Your task to perform on an android device: Empty the shopping cart on costco.com. Add sony triple a to the cart on costco.com Image 0: 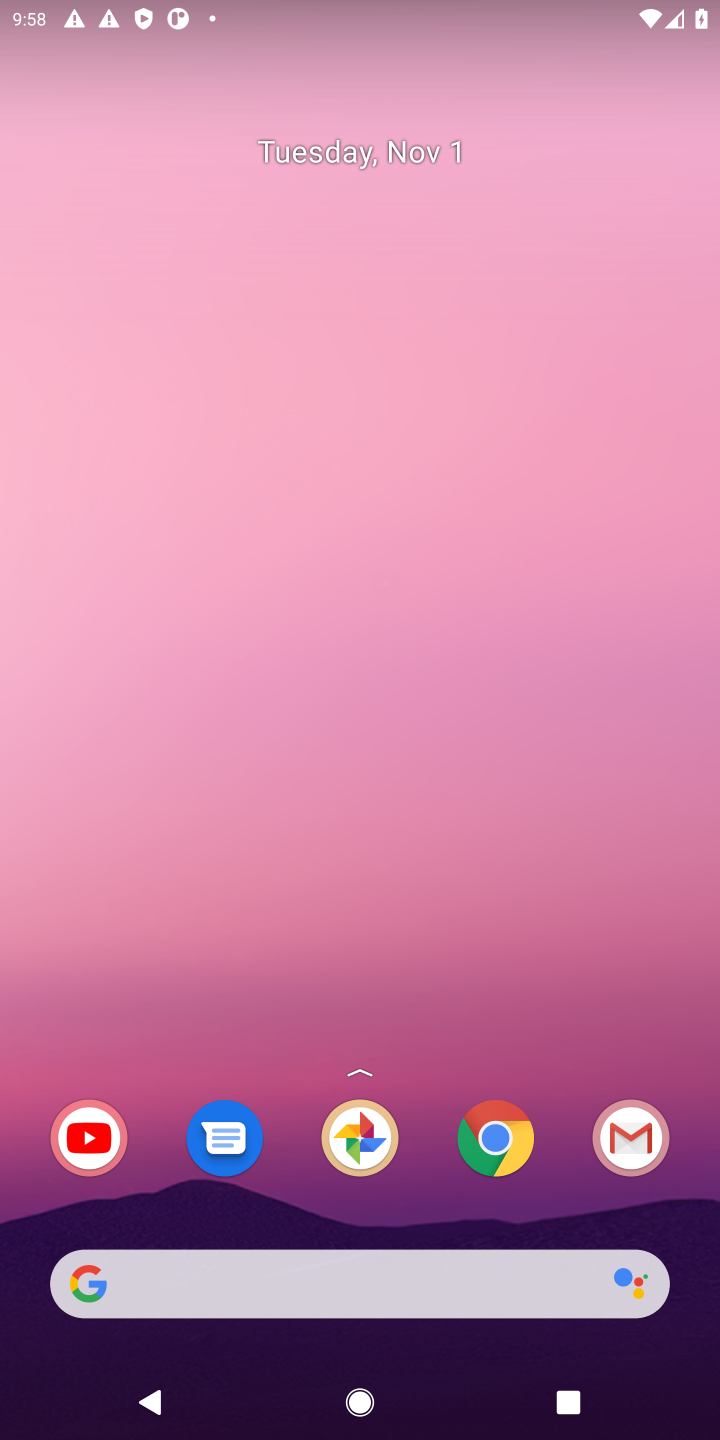
Step 0: click (501, 1137)
Your task to perform on an android device: Empty the shopping cart on costco.com. Add sony triple a to the cart on costco.com Image 1: 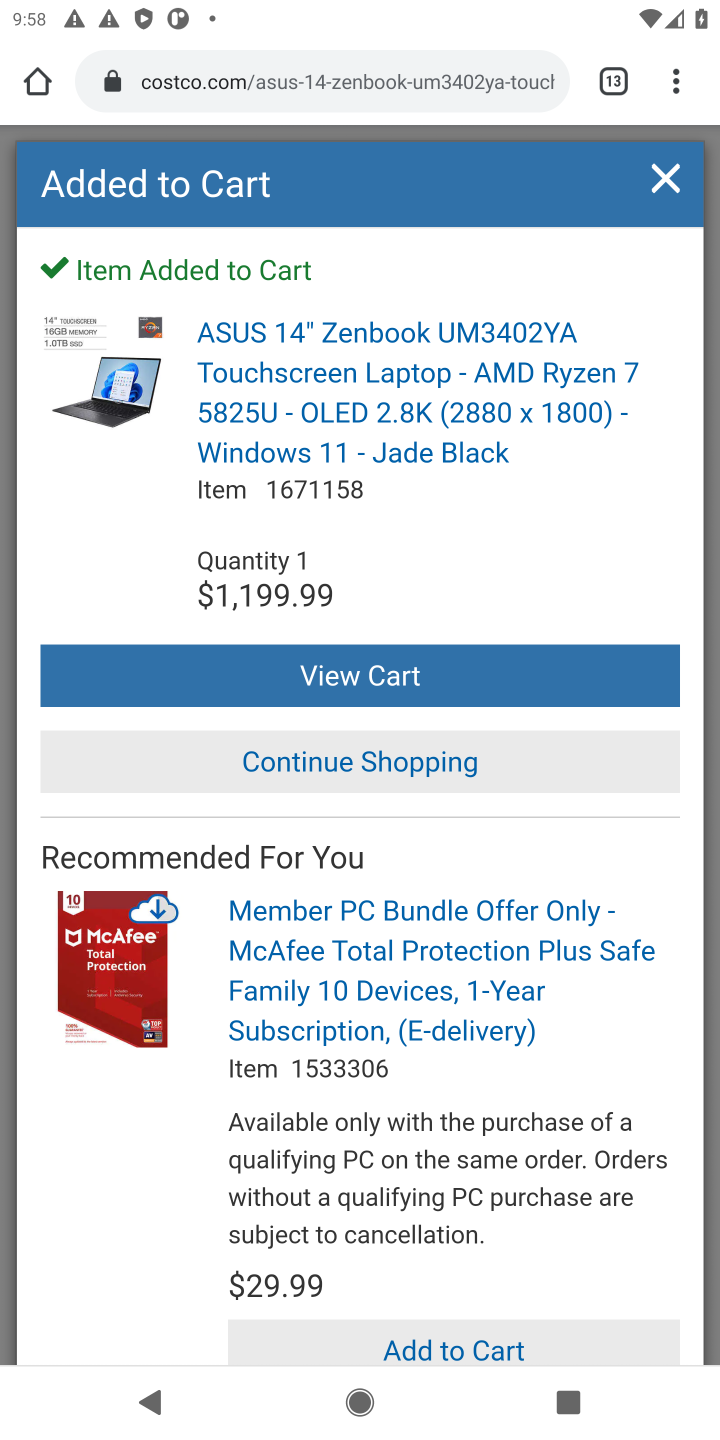
Step 1: drag from (677, 98) to (375, 181)
Your task to perform on an android device: Empty the shopping cart on costco.com. Add sony triple a to the cart on costco.com Image 2: 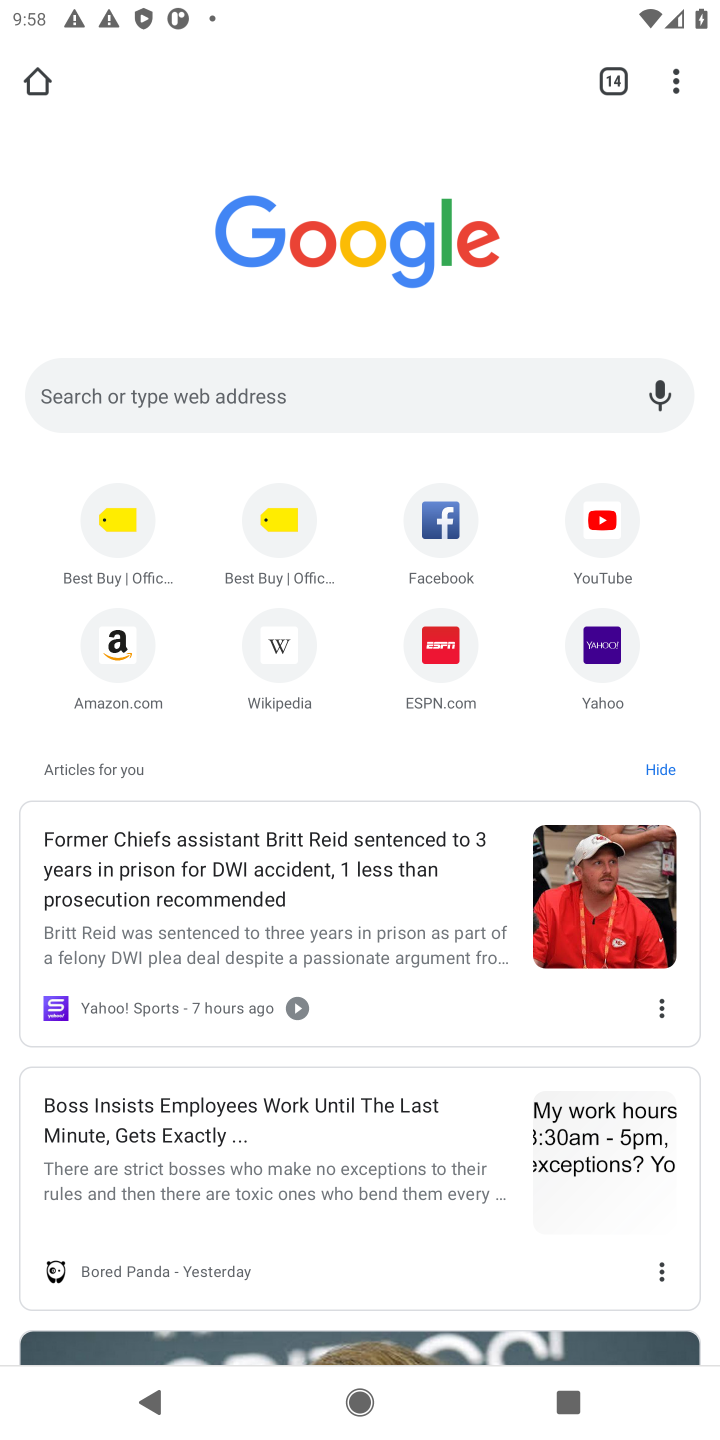
Step 2: click (271, 393)
Your task to perform on an android device: Empty the shopping cart on costco.com. Add sony triple a to the cart on costco.com Image 3: 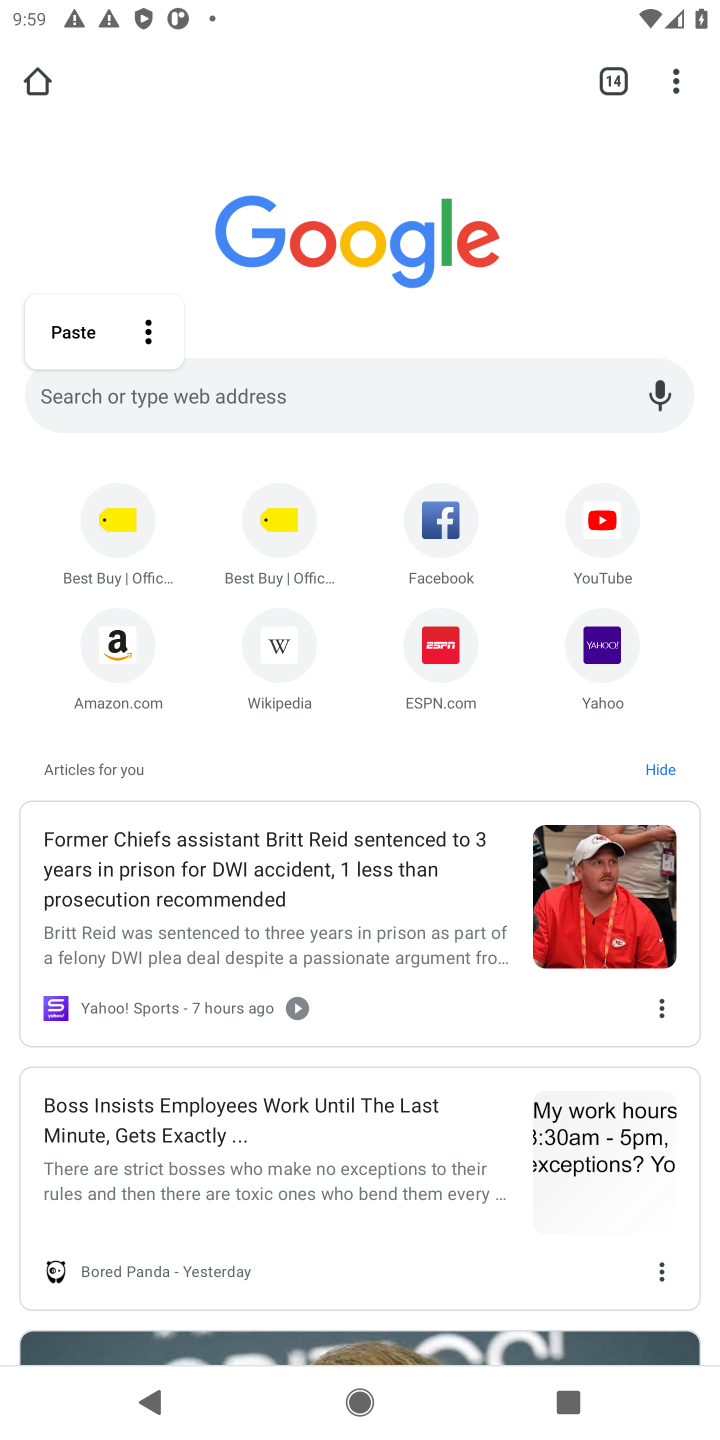
Step 3: click (348, 418)
Your task to perform on an android device: Empty the shopping cart on costco.com. Add sony triple a to the cart on costco.com Image 4: 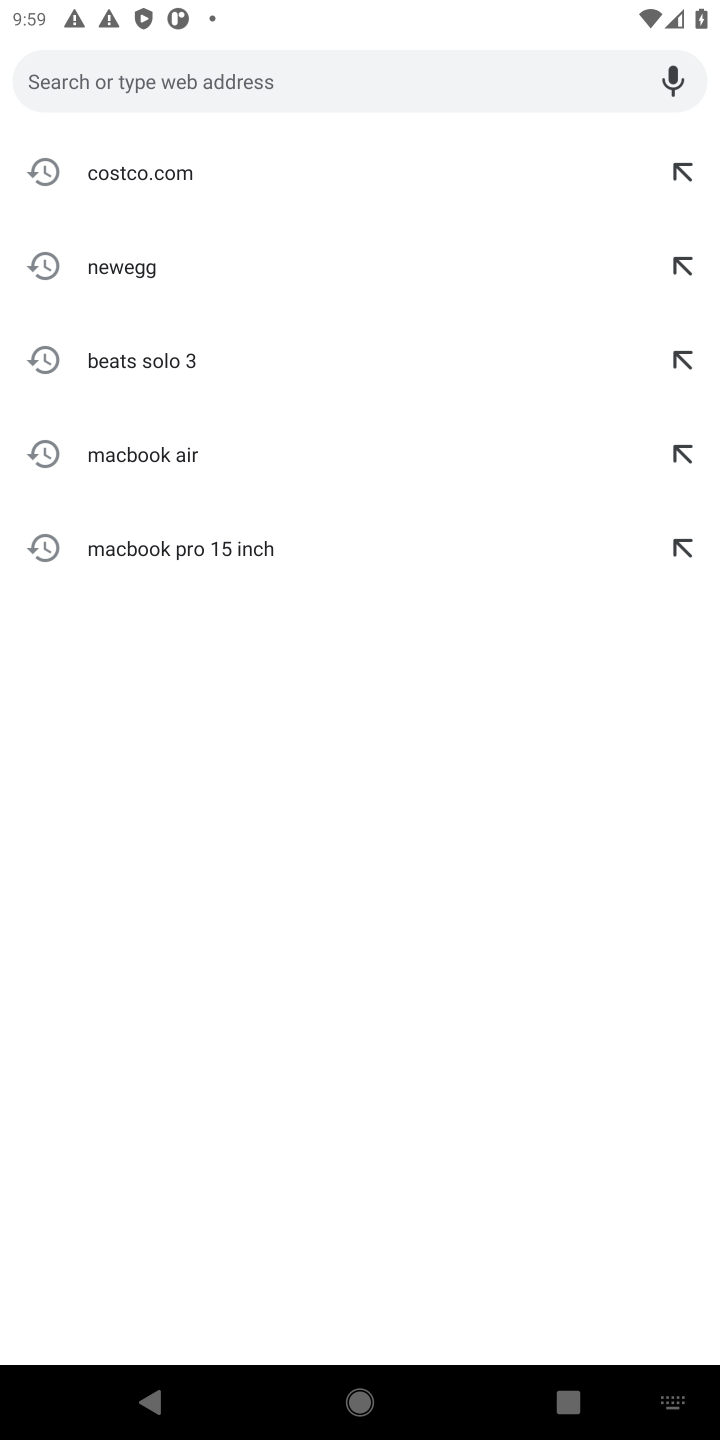
Step 4: type "costco.com"
Your task to perform on an android device: Empty the shopping cart on costco.com. Add sony triple a to the cart on costco.com Image 5: 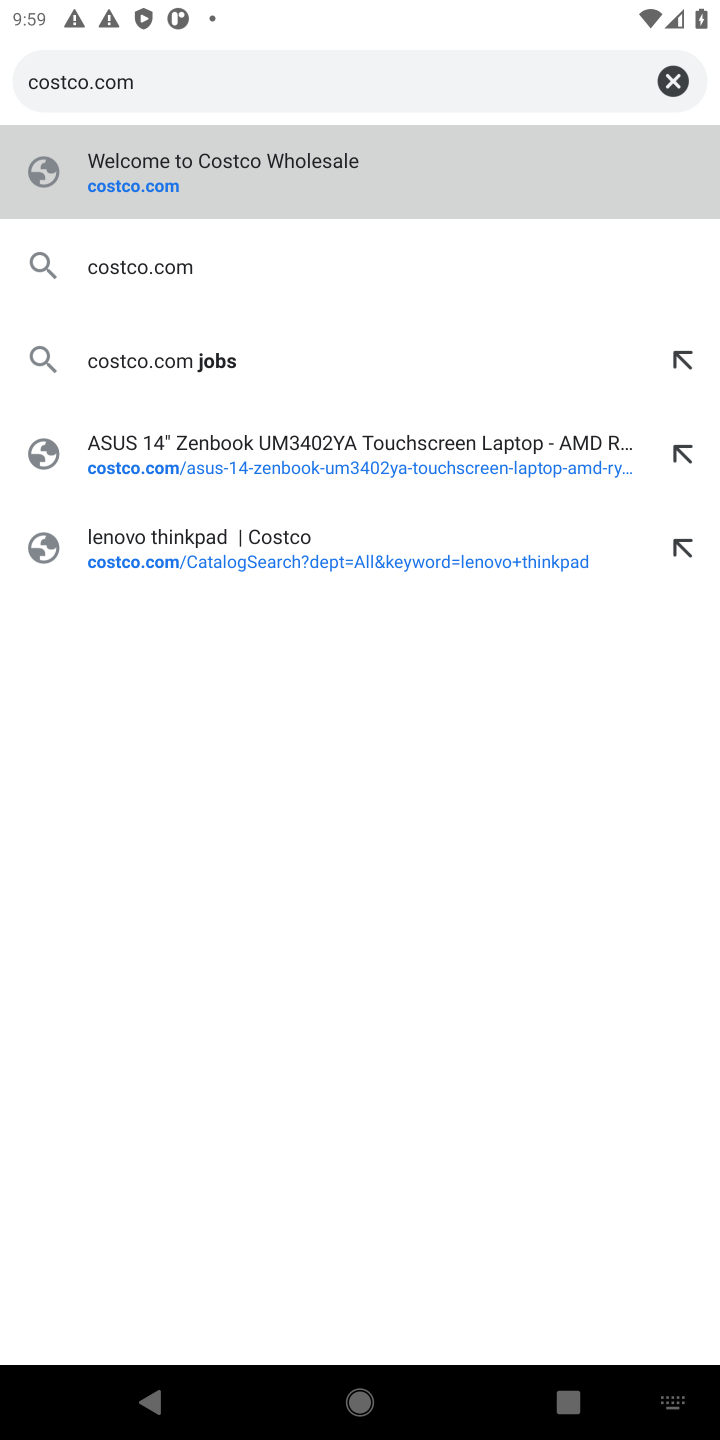
Step 5: type ""
Your task to perform on an android device: Empty the shopping cart on costco.com. Add sony triple a to the cart on costco.com Image 6: 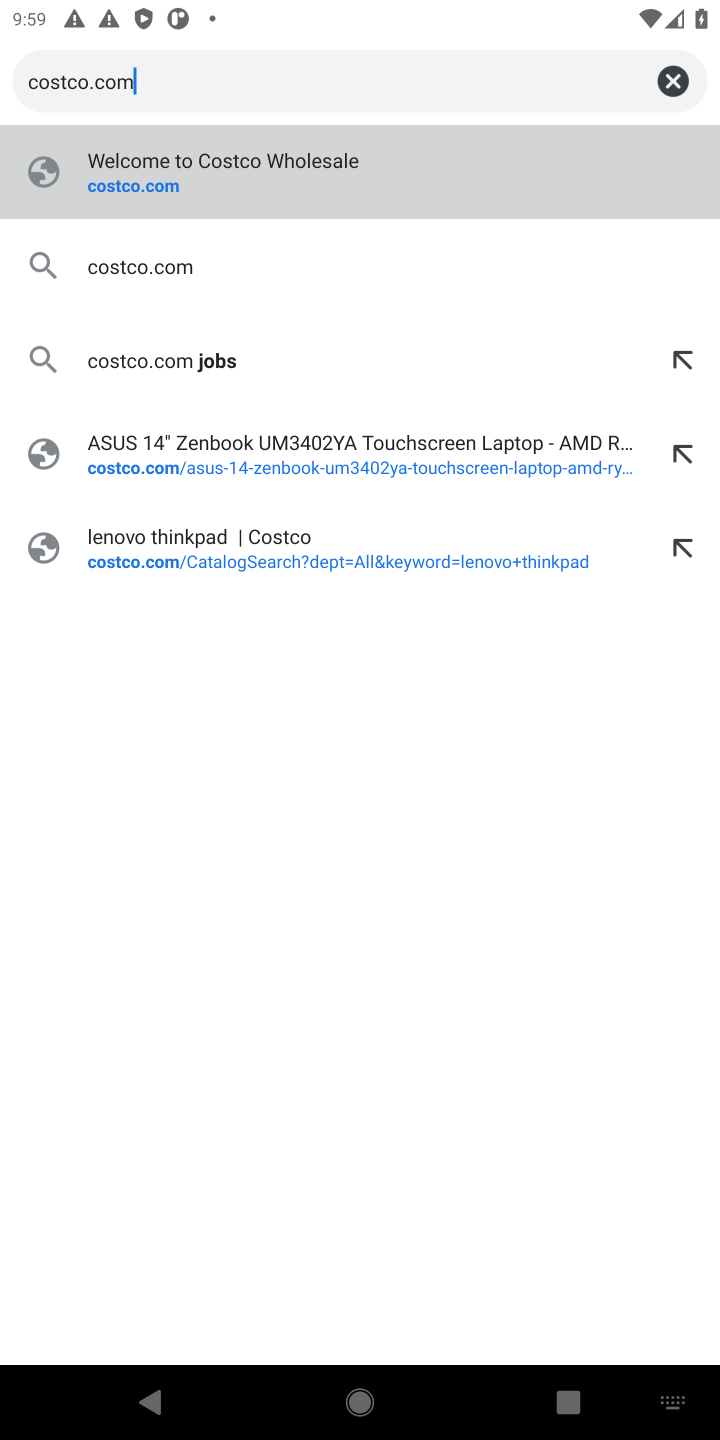
Step 6: click (179, 269)
Your task to perform on an android device: Empty the shopping cart on costco.com. Add sony triple a to the cart on costco.com Image 7: 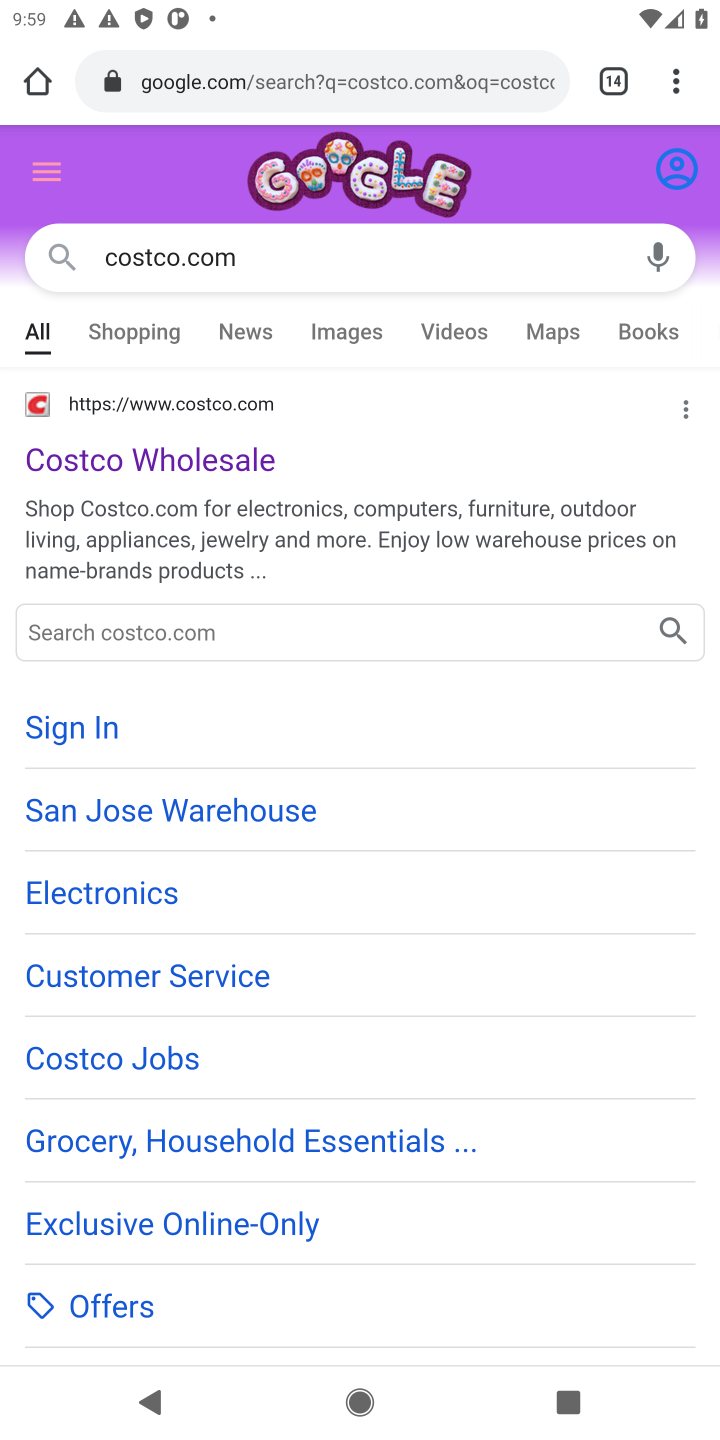
Step 7: click (216, 464)
Your task to perform on an android device: Empty the shopping cart on costco.com. Add sony triple a to the cart on costco.com Image 8: 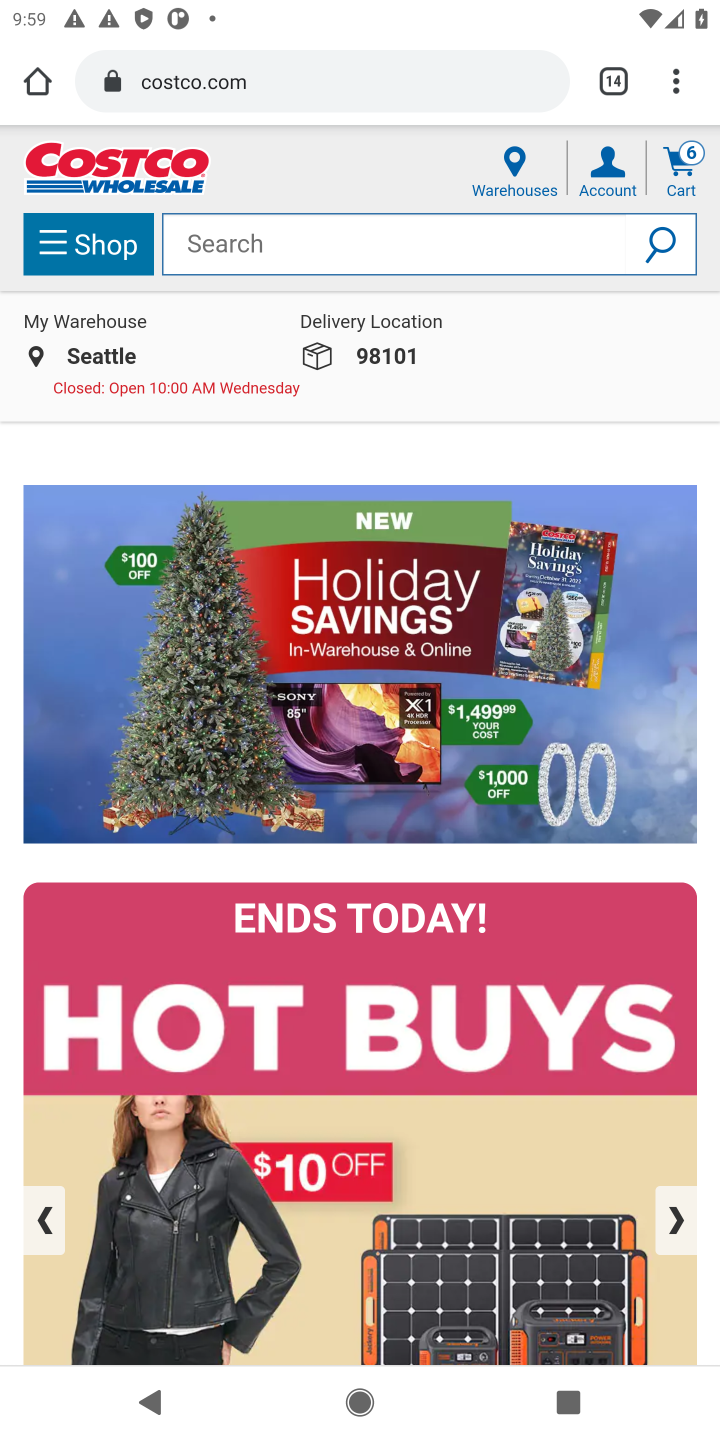
Step 8: click (297, 240)
Your task to perform on an android device: Empty the shopping cart on costco.com. Add sony triple a to the cart on costco.com Image 9: 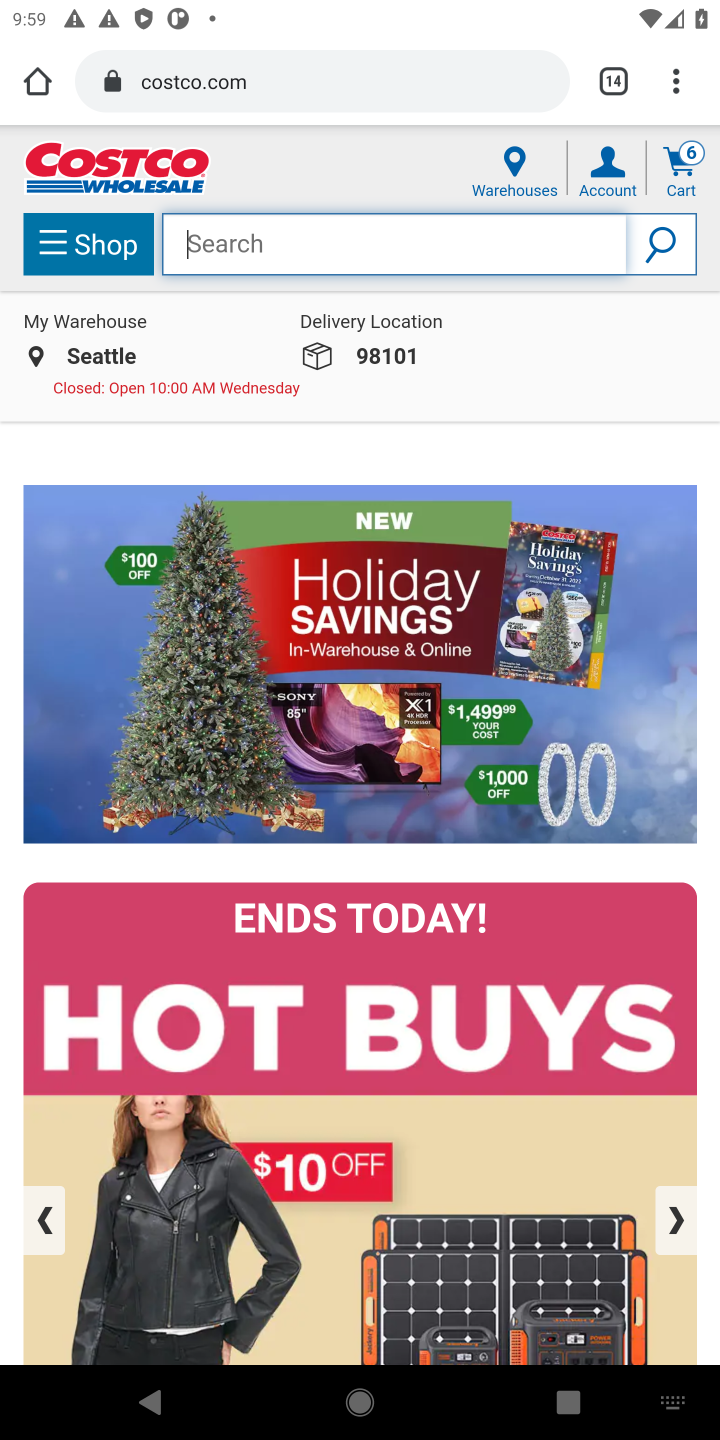
Step 9: type "sony triple"
Your task to perform on an android device: Empty the shopping cart on costco.com. Add sony triple a to the cart on costco.com Image 10: 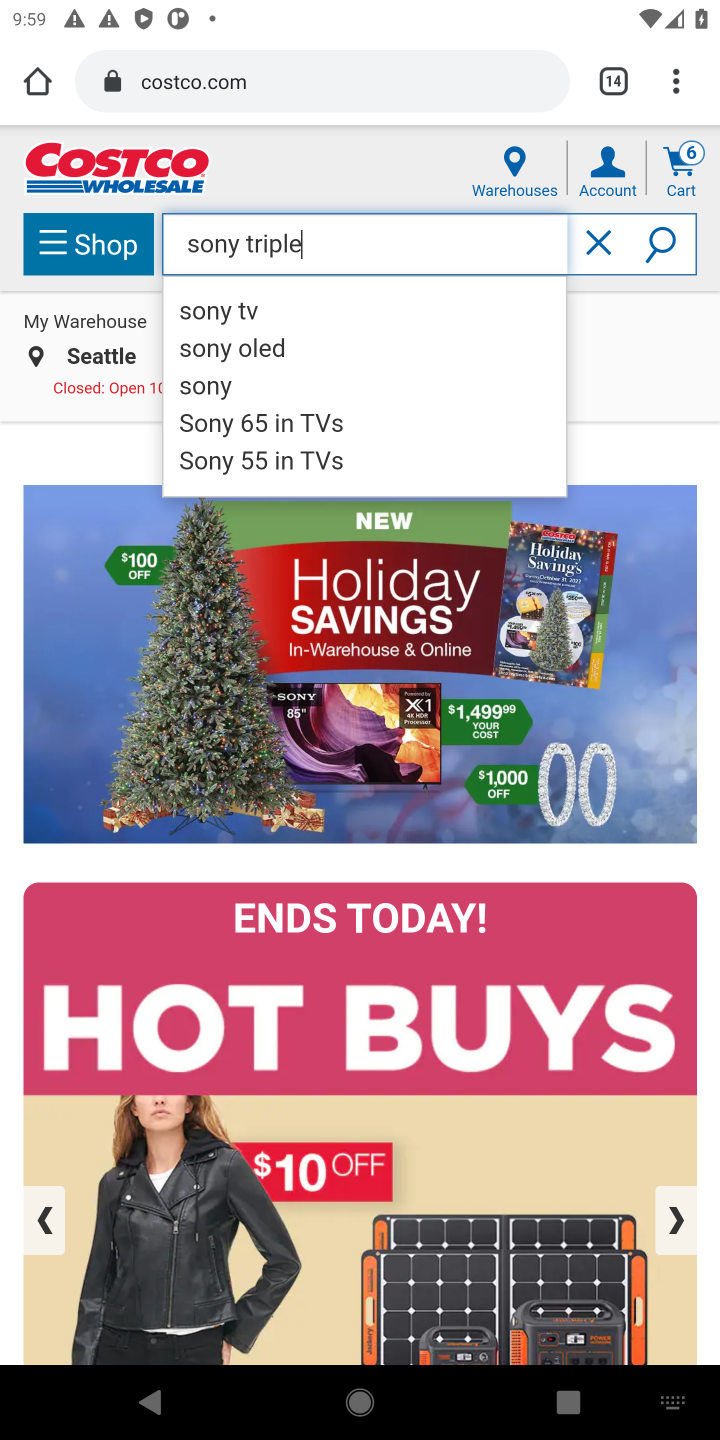
Step 10: type ""
Your task to perform on an android device: Empty the shopping cart on costco.com. Add sony triple a to the cart on costco.com Image 11: 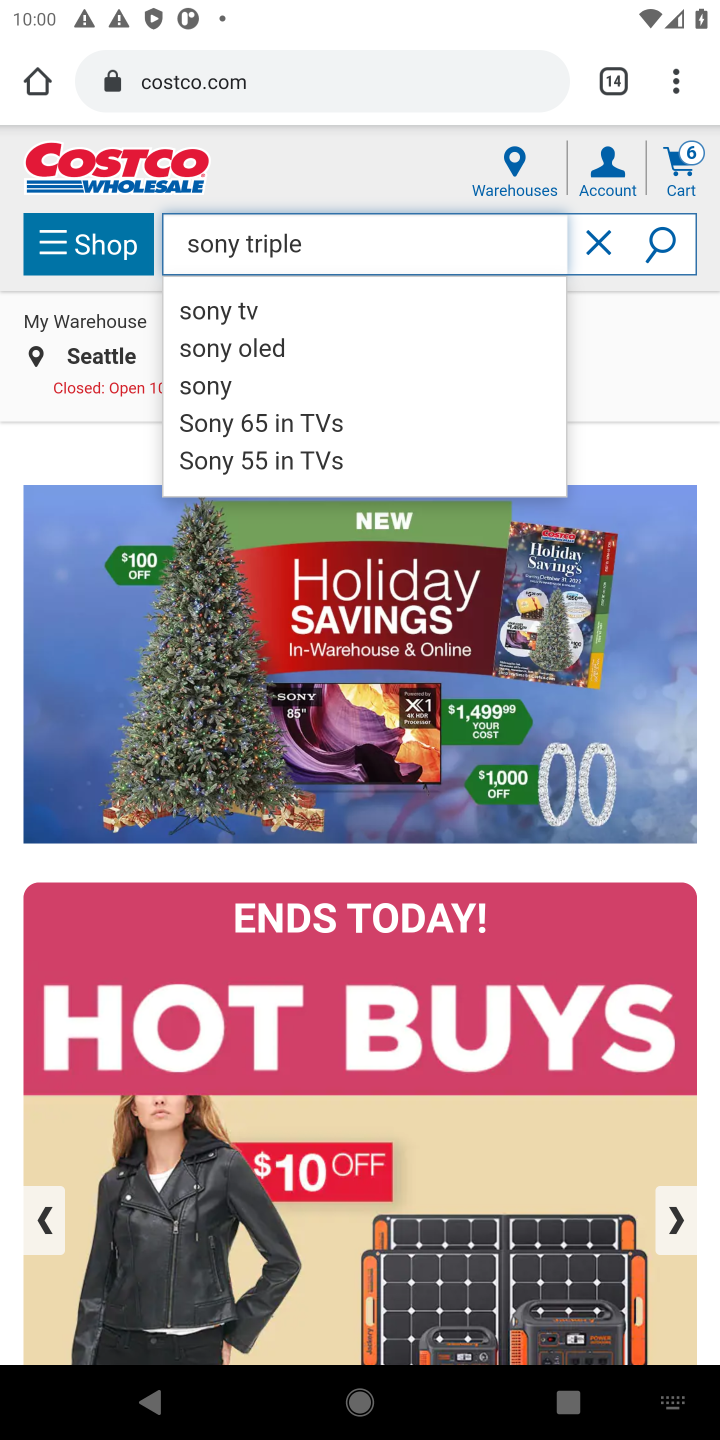
Step 11: click (238, 311)
Your task to perform on an android device: Empty the shopping cart on costco.com. Add sony triple a to the cart on costco.com Image 12: 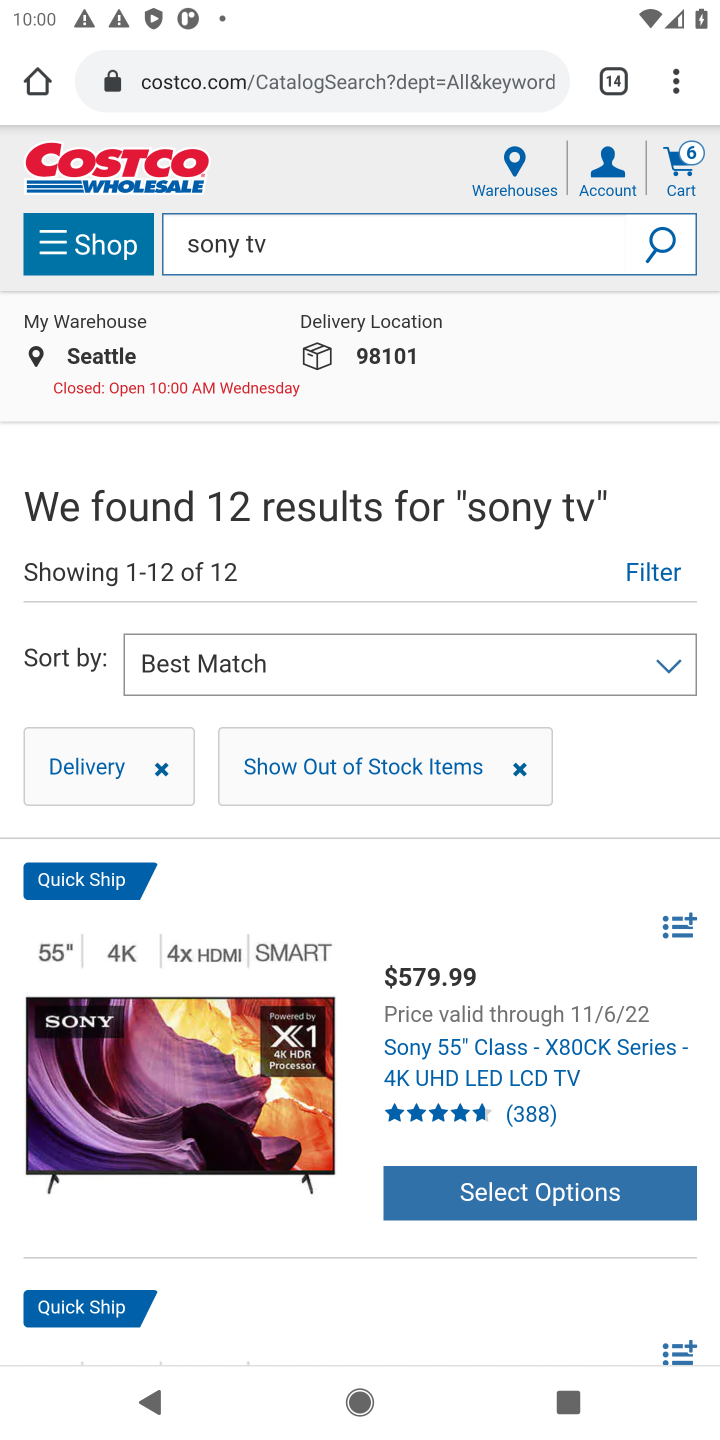
Step 12: click (444, 1001)
Your task to perform on an android device: Empty the shopping cart on costco.com. Add sony triple a to the cart on costco.com Image 13: 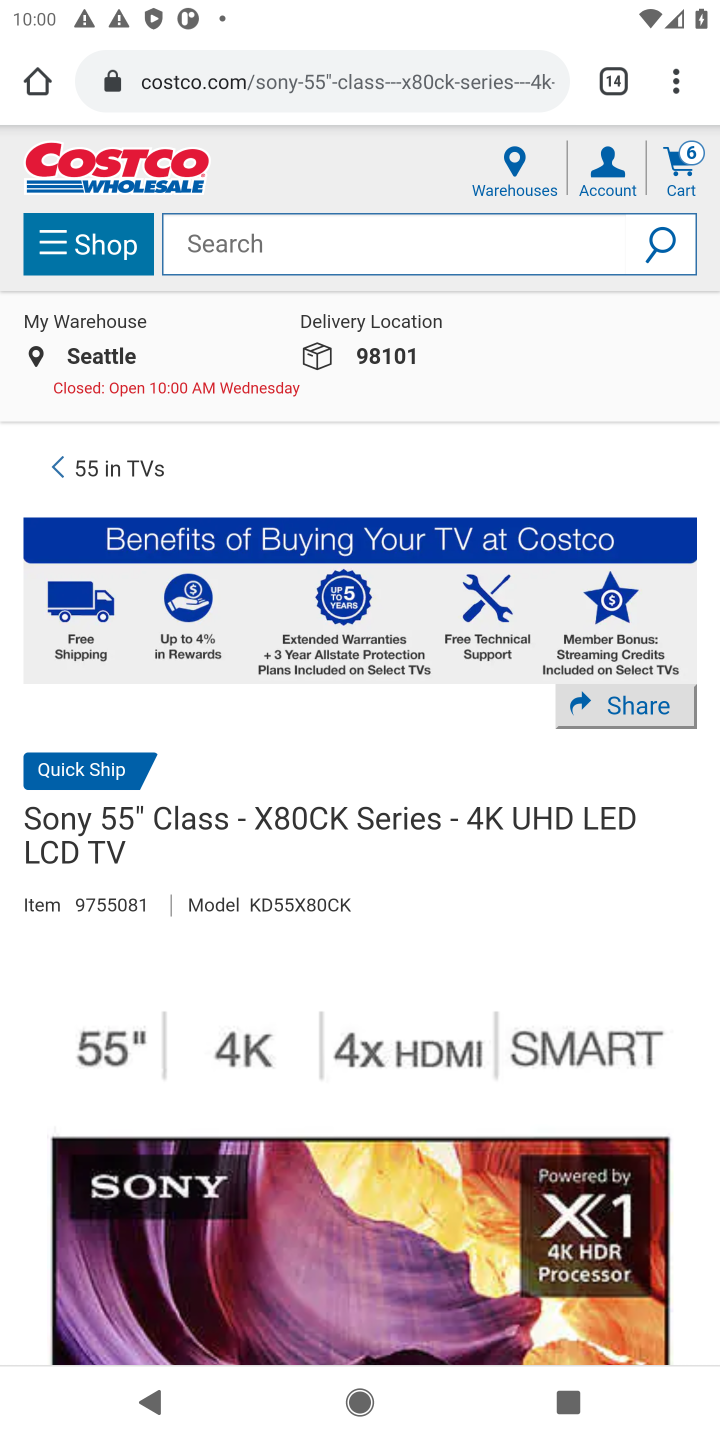
Step 13: drag from (302, 1193) to (223, 584)
Your task to perform on an android device: Empty the shopping cart on costco.com. Add sony triple a to the cart on costco.com Image 14: 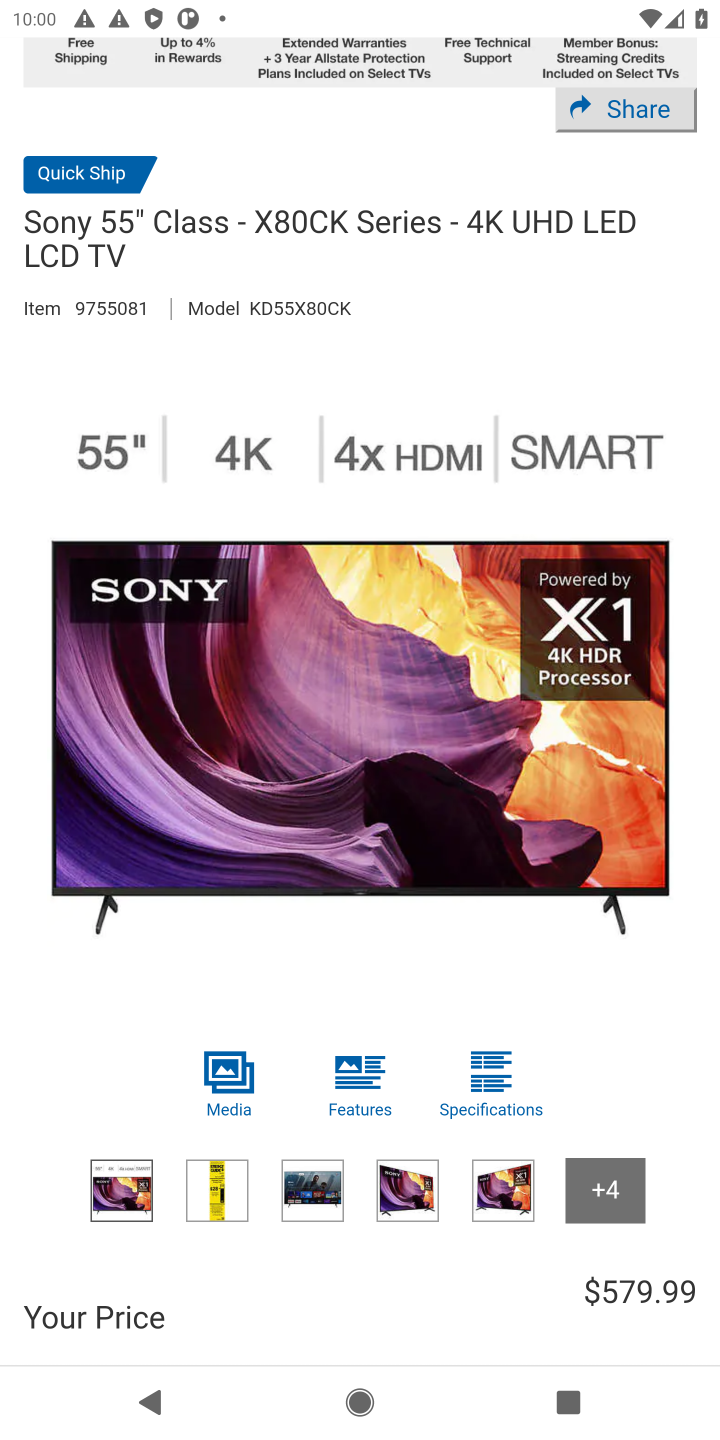
Step 14: drag from (414, 1180) to (263, 701)
Your task to perform on an android device: Empty the shopping cart on costco.com. Add sony triple a to the cart on costco.com Image 15: 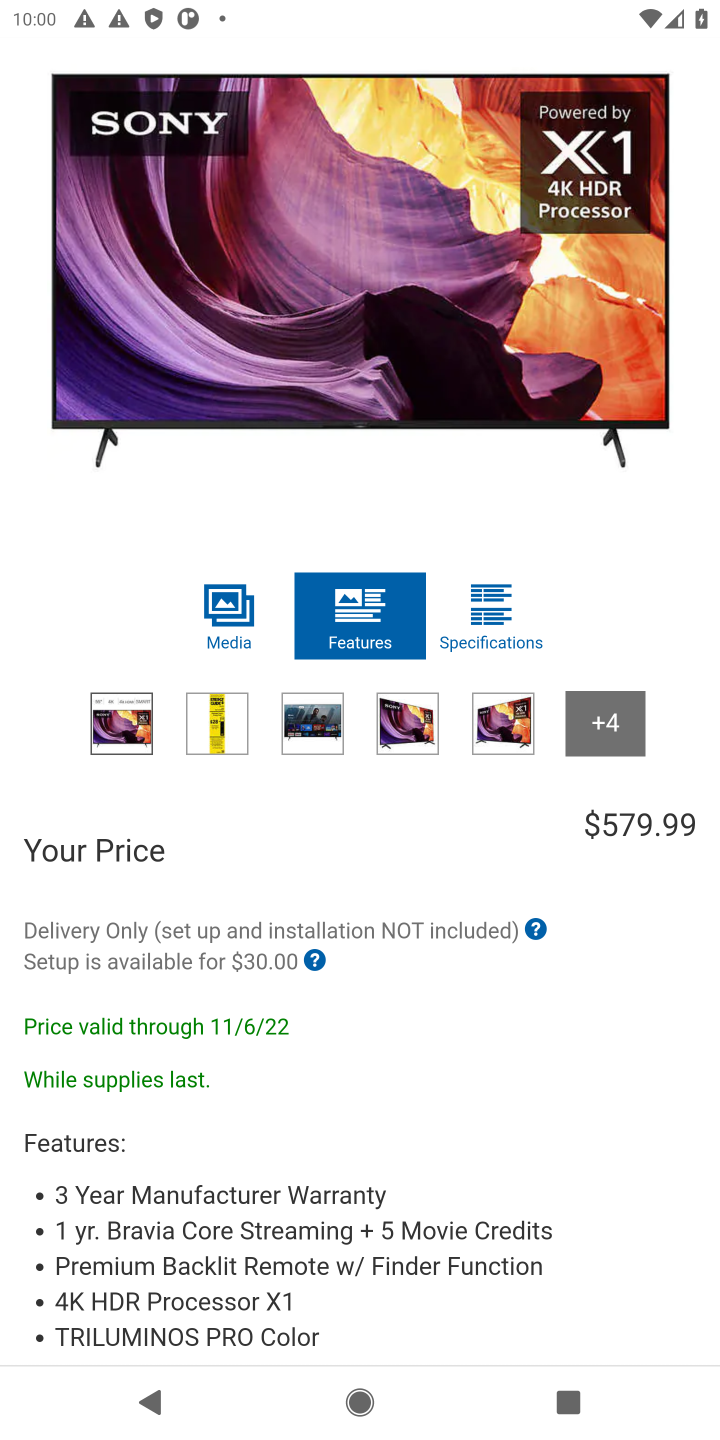
Step 15: drag from (342, 1252) to (210, 509)
Your task to perform on an android device: Empty the shopping cart on costco.com. Add sony triple a to the cart on costco.com Image 16: 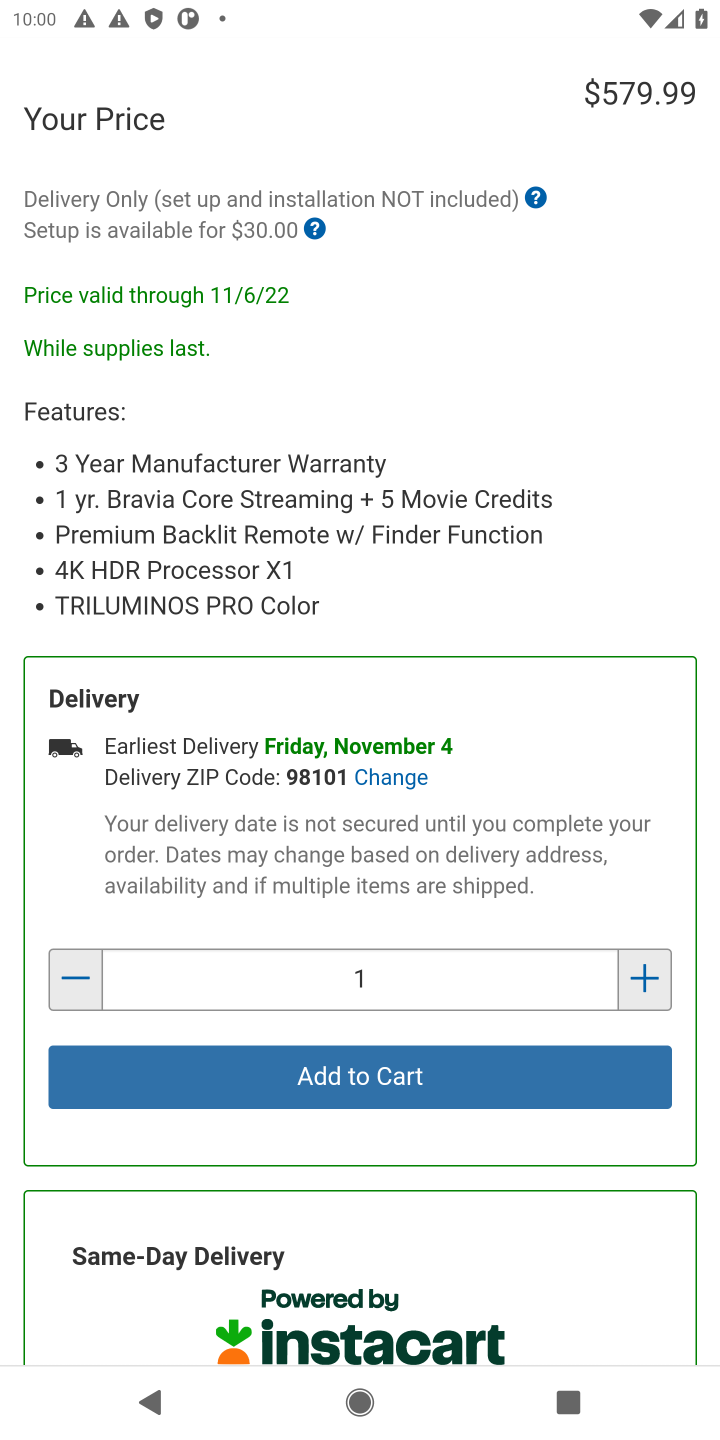
Step 16: click (336, 1078)
Your task to perform on an android device: Empty the shopping cart on costco.com. Add sony triple a to the cart on costco.com Image 17: 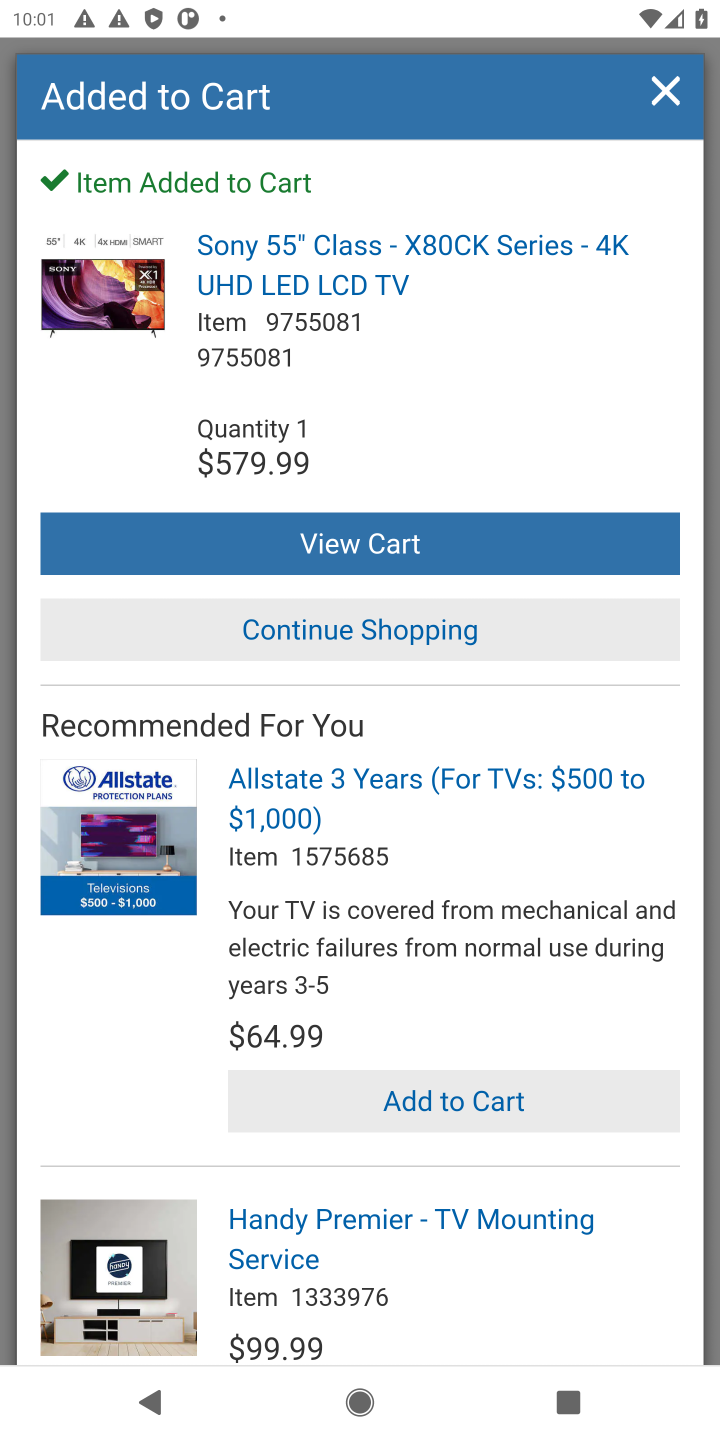
Step 17: task complete